Your task to perform on an android device: search for starred emails in the gmail app Image 0: 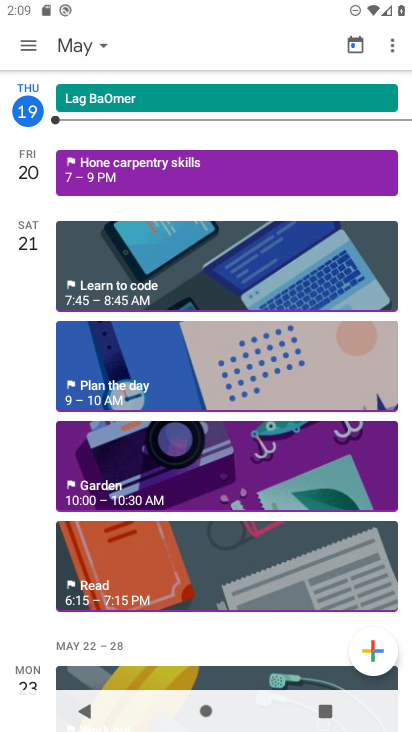
Step 0: press home button
Your task to perform on an android device: search for starred emails in the gmail app Image 1: 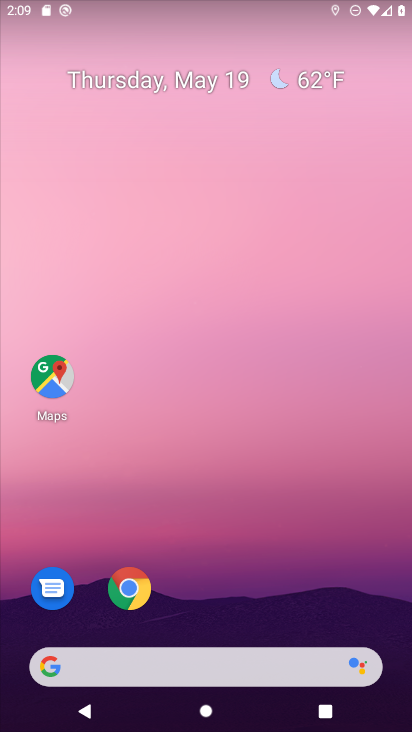
Step 1: drag from (333, 636) to (310, 3)
Your task to perform on an android device: search for starred emails in the gmail app Image 2: 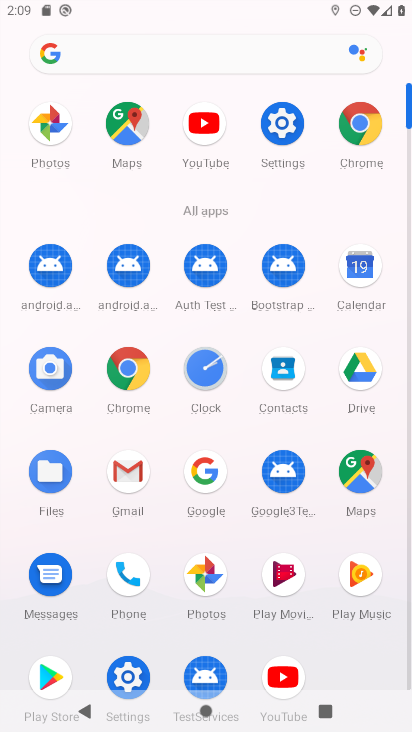
Step 2: click (134, 474)
Your task to perform on an android device: search for starred emails in the gmail app Image 3: 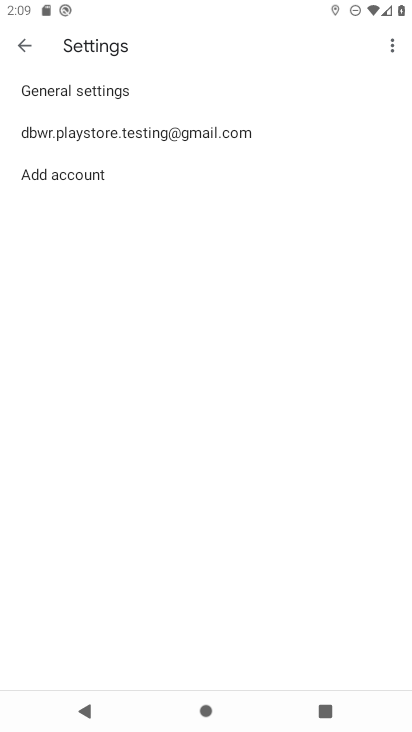
Step 3: click (24, 45)
Your task to perform on an android device: search for starred emails in the gmail app Image 4: 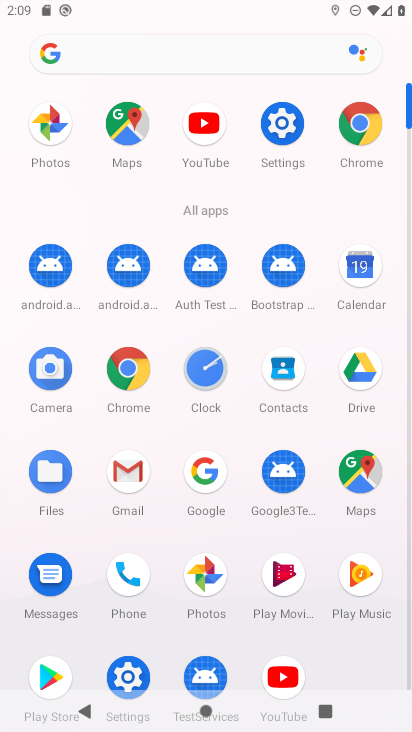
Step 4: click (138, 455)
Your task to perform on an android device: search for starred emails in the gmail app Image 5: 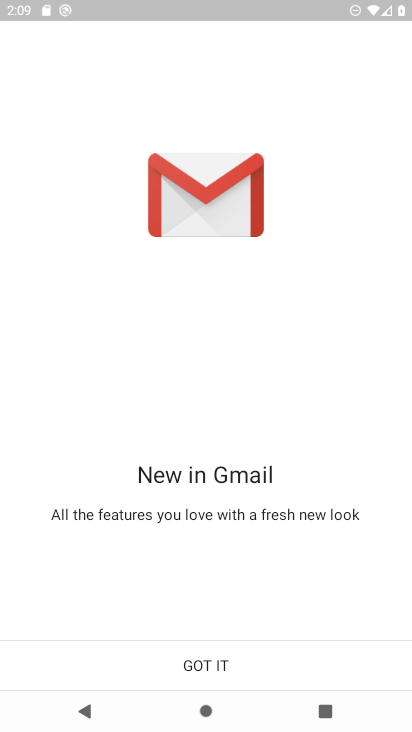
Step 5: click (191, 663)
Your task to perform on an android device: search for starred emails in the gmail app Image 6: 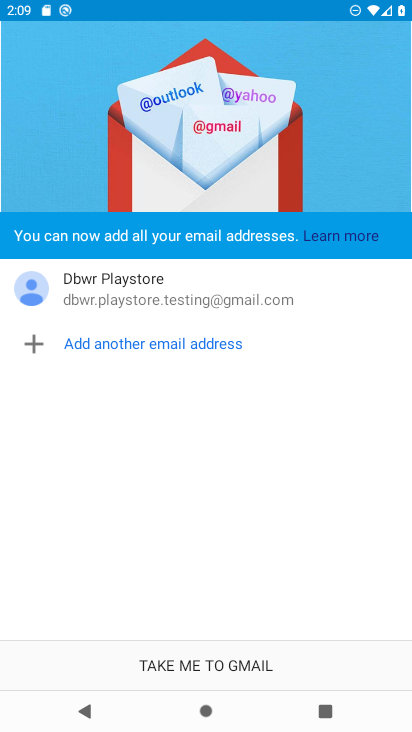
Step 6: click (191, 665)
Your task to perform on an android device: search for starred emails in the gmail app Image 7: 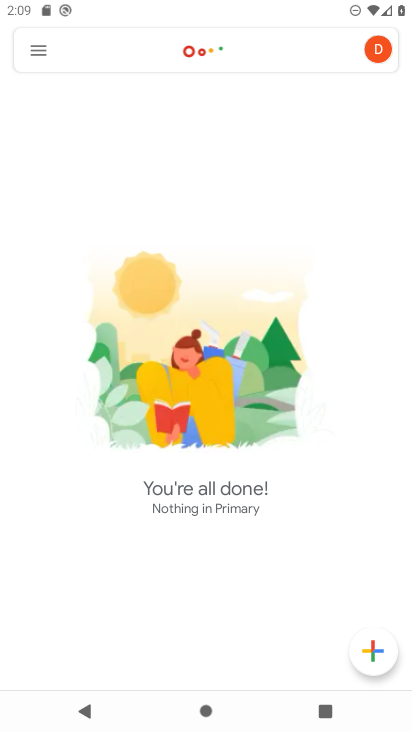
Step 7: click (41, 48)
Your task to perform on an android device: search for starred emails in the gmail app Image 8: 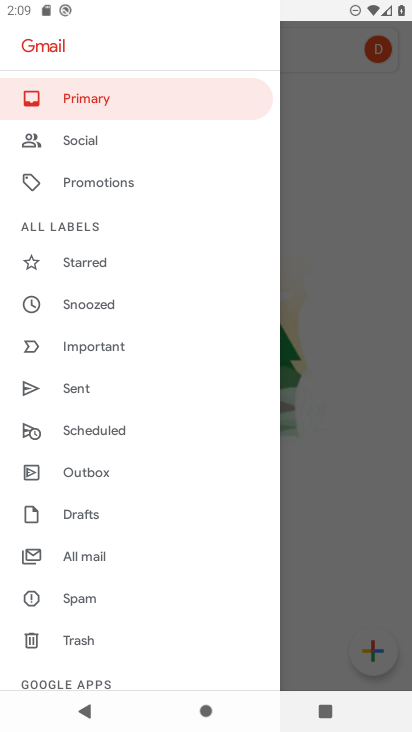
Step 8: click (51, 266)
Your task to perform on an android device: search for starred emails in the gmail app Image 9: 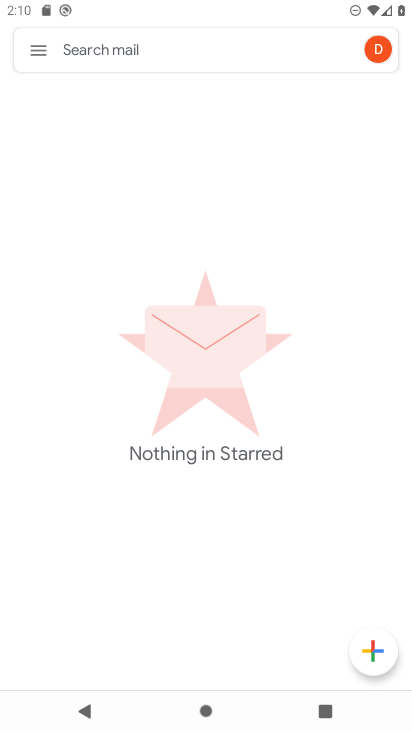
Step 9: task complete